Your task to perform on an android device: Search for flights from Chicago to London Image 0: 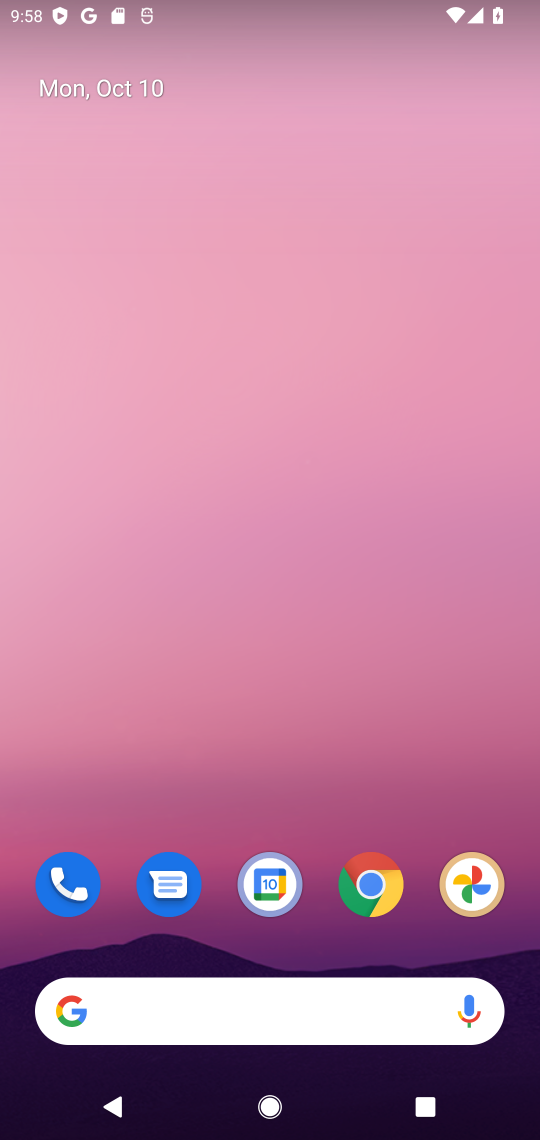
Step 0: drag from (310, 963) to (381, 140)
Your task to perform on an android device: Search for flights from Chicago to London Image 1: 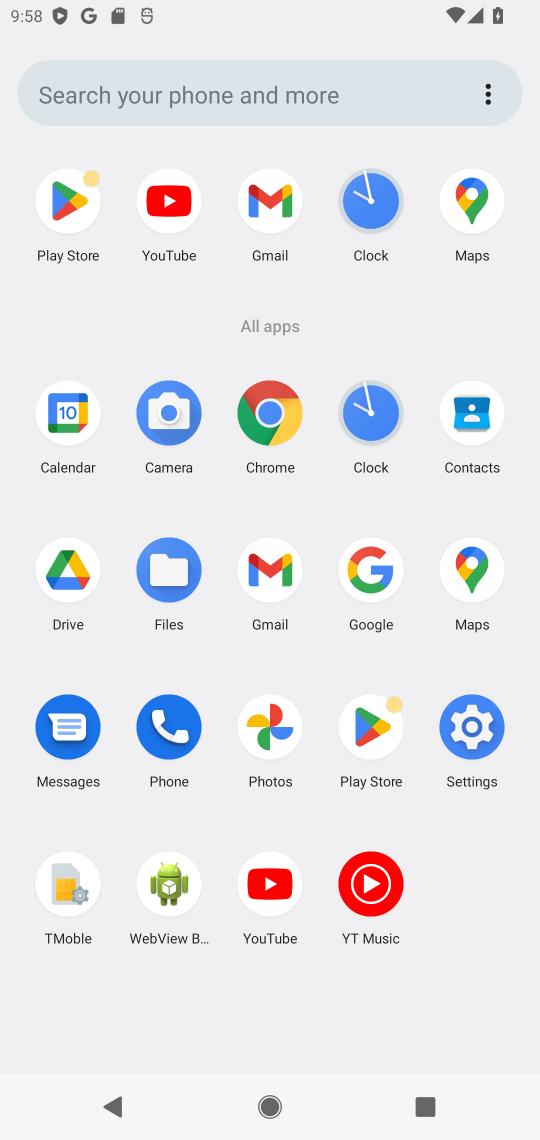
Step 1: click (365, 565)
Your task to perform on an android device: Search for flights from Chicago to London Image 2: 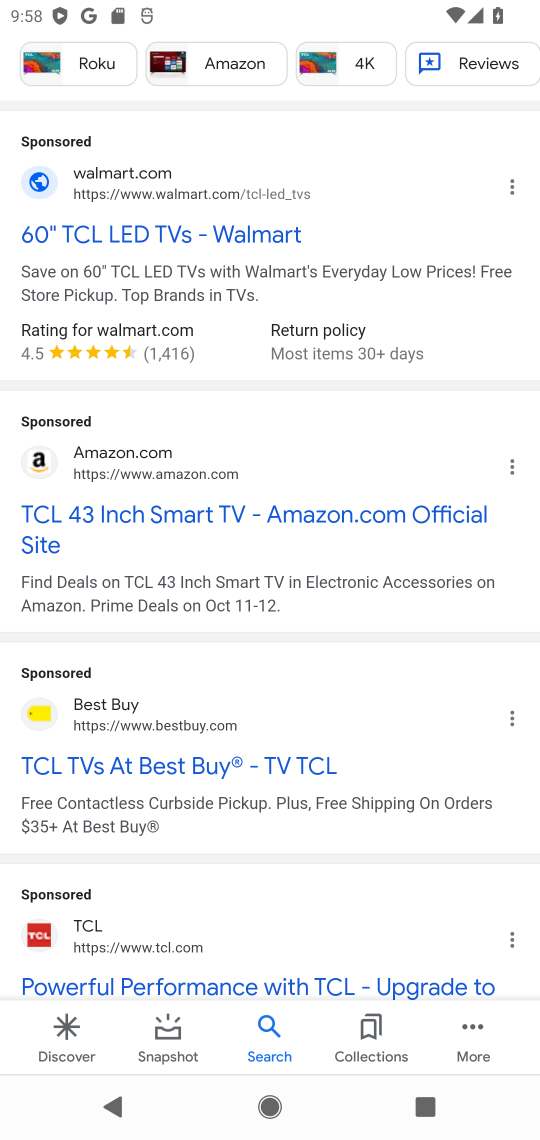
Step 2: drag from (298, 214) to (451, 873)
Your task to perform on an android device: Search for flights from Chicago to London Image 3: 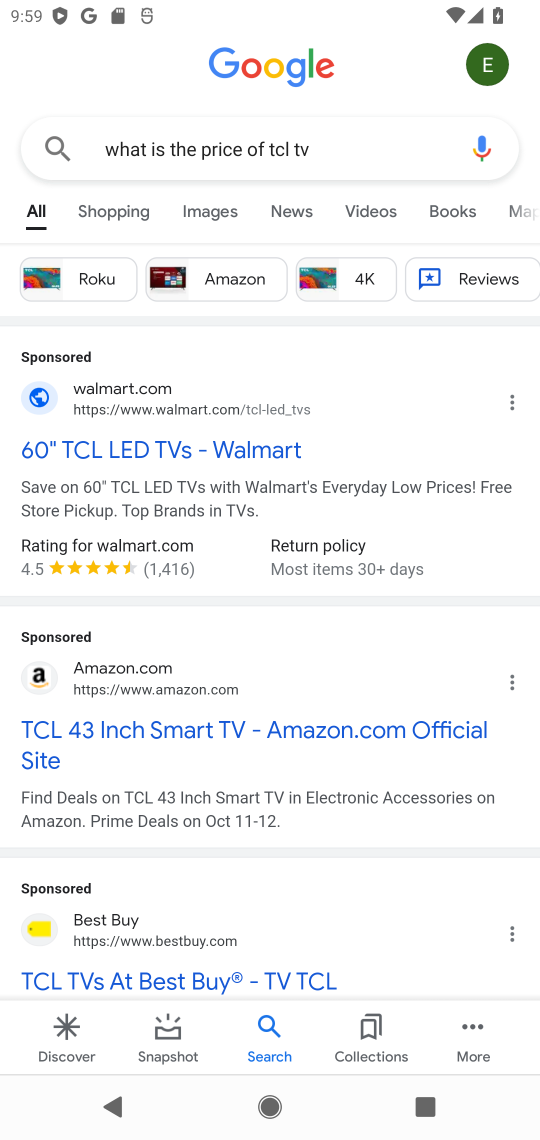
Step 3: click (350, 155)
Your task to perform on an android device: Search for flights from Chicago to London Image 4: 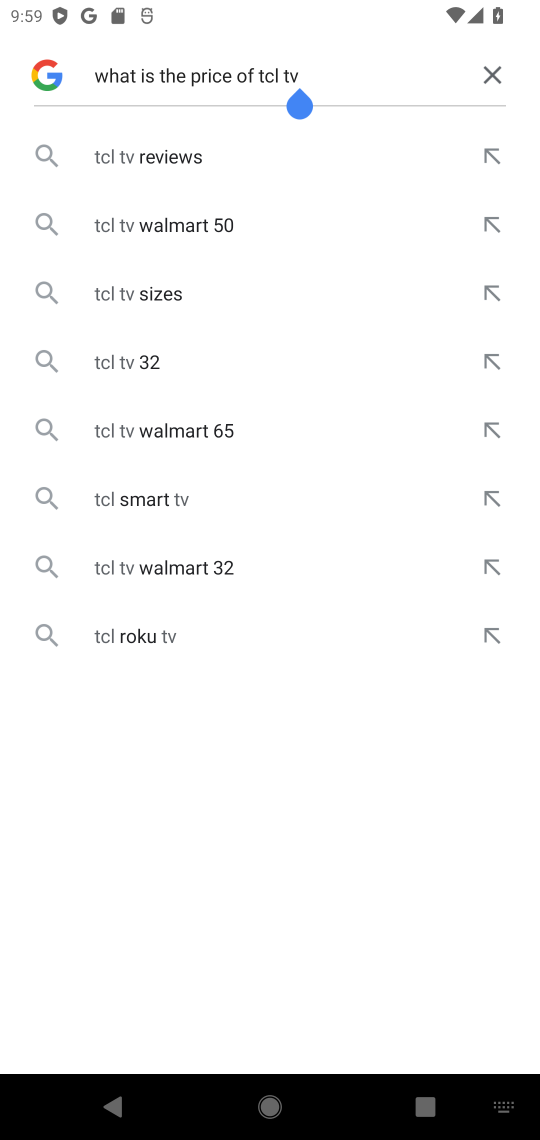
Step 4: click (488, 71)
Your task to perform on an android device: Search for flights from Chicago to London Image 5: 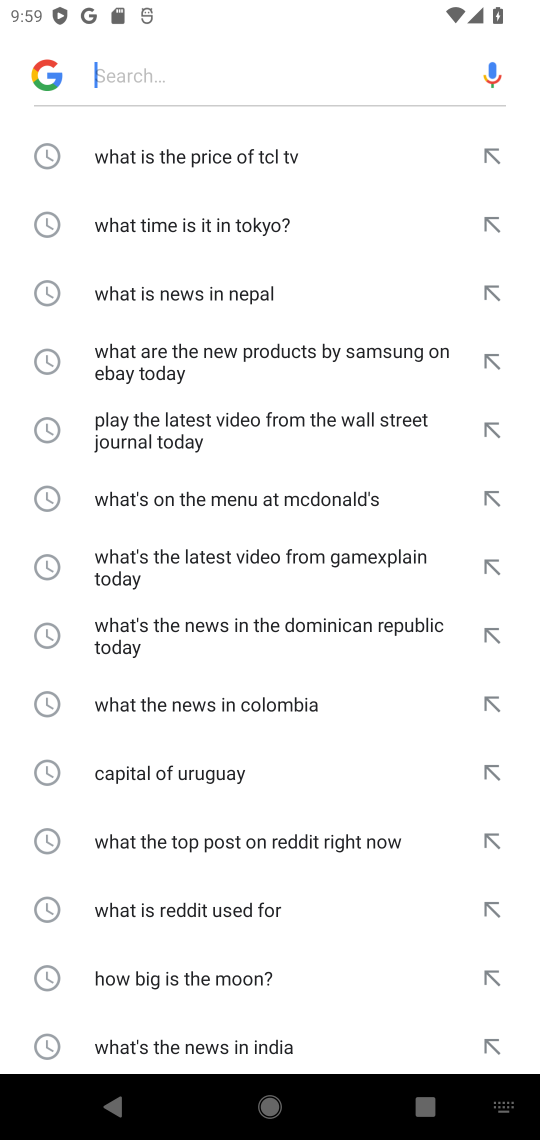
Step 5: type "lights from Chicago to London"
Your task to perform on an android device: Search for flights from Chicago to London Image 6: 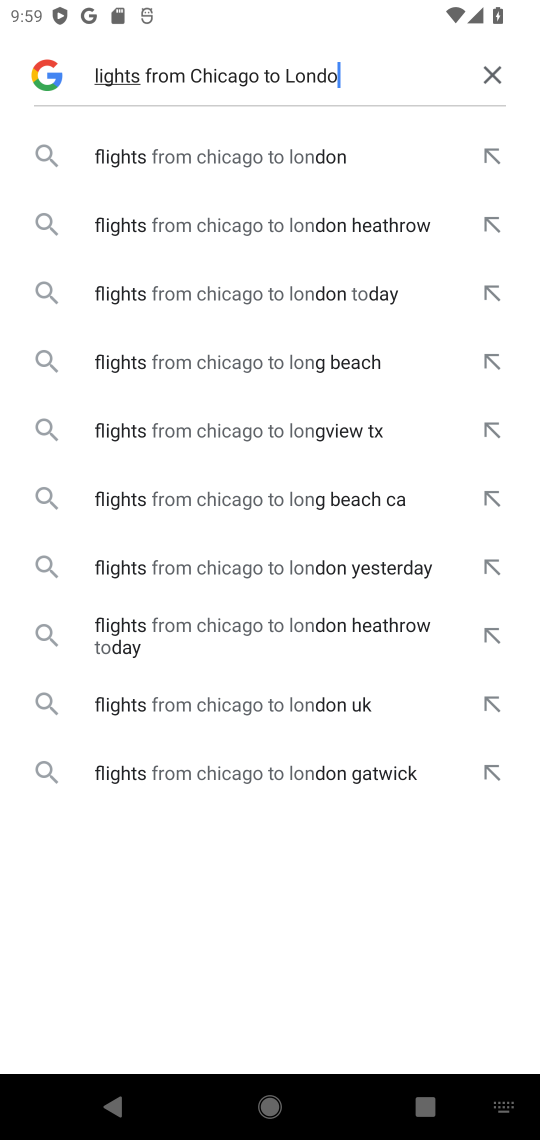
Step 6: type ""
Your task to perform on an android device: Search for flights from Chicago to London Image 7: 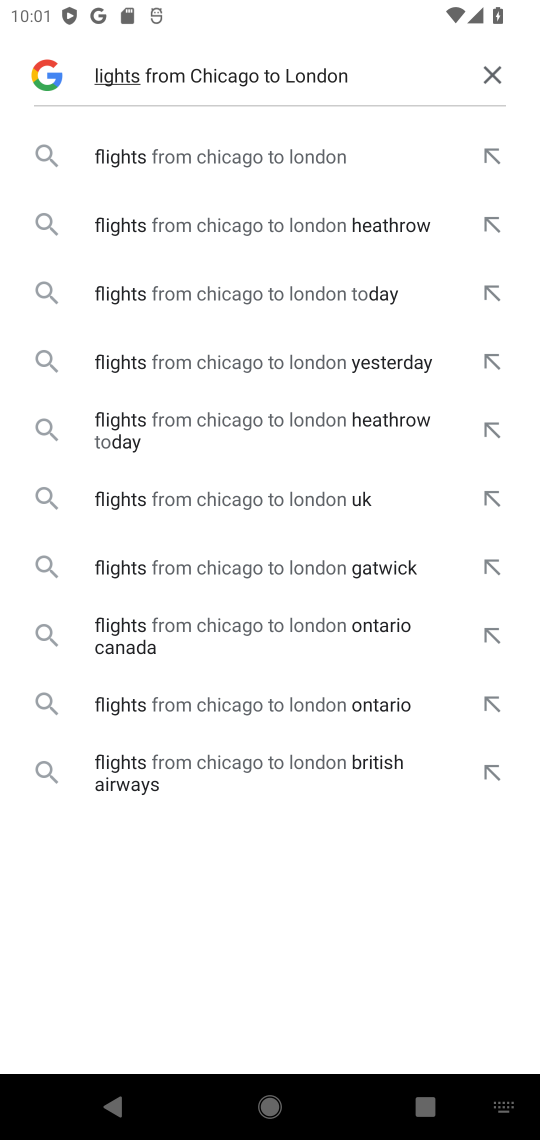
Step 7: click (227, 155)
Your task to perform on an android device: Search for flights from Chicago to London Image 8: 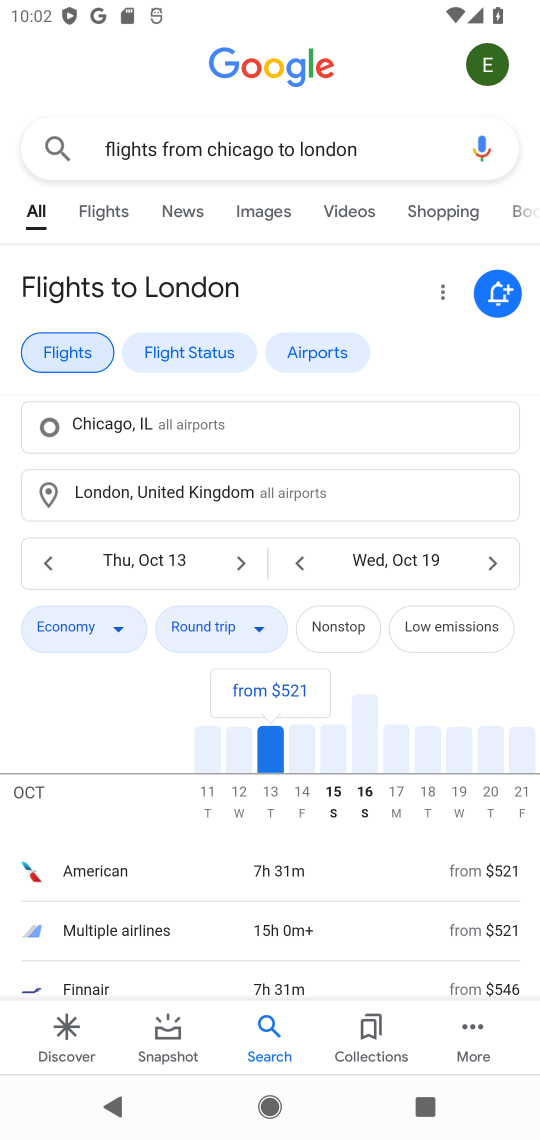
Step 8: task complete